Your task to perform on an android device: Open Google Chrome and open the bookmarks view Image 0: 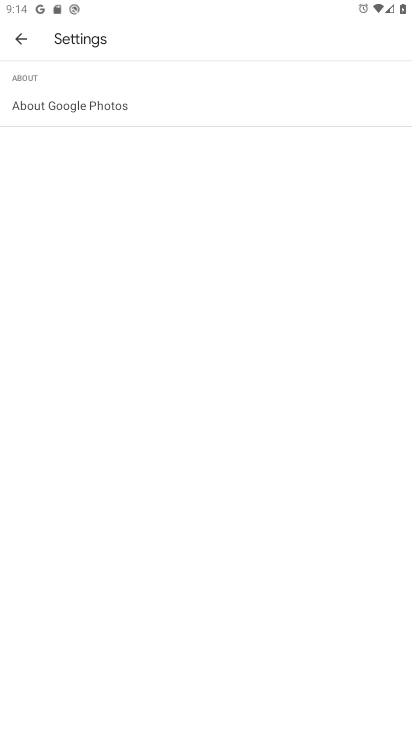
Step 0: press home button
Your task to perform on an android device: Open Google Chrome and open the bookmarks view Image 1: 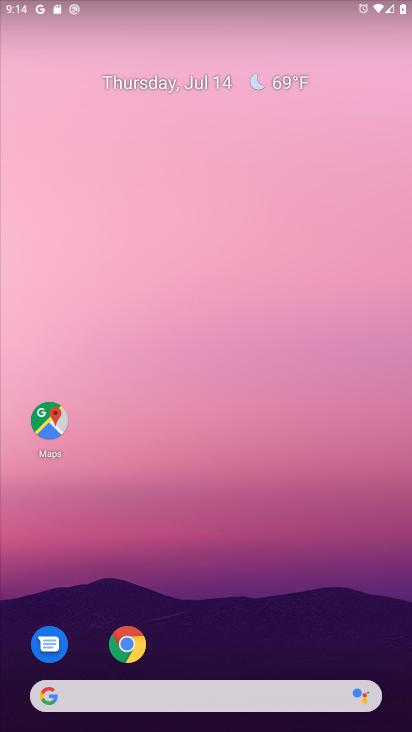
Step 1: click (134, 644)
Your task to perform on an android device: Open Google Chrome and open the bookmarks view Image 2: 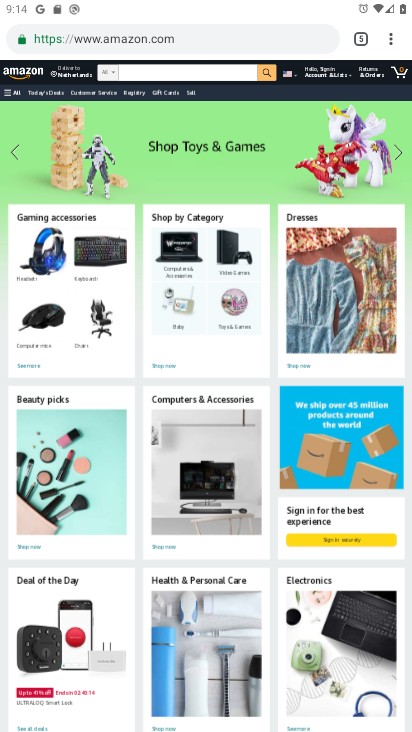
Step 2: click (398, 37)
Your task to perform on an android device: Open Google Chrome and open the bookmarks view Image 3: 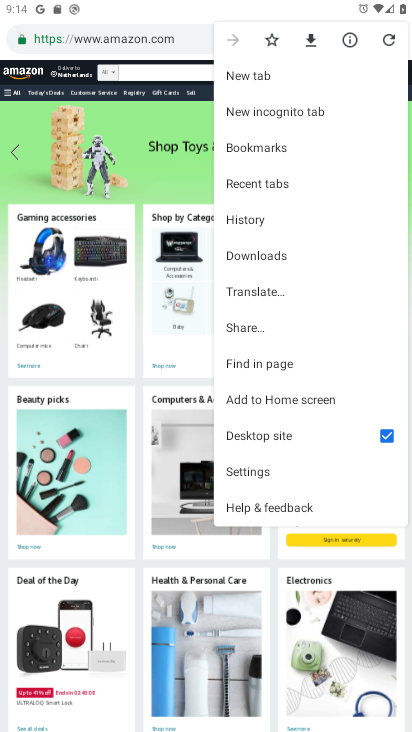
Step 3: click (320, 150)
Your task to perform on an android device: Open Google Chrome and open the bookmarks view Image 4: 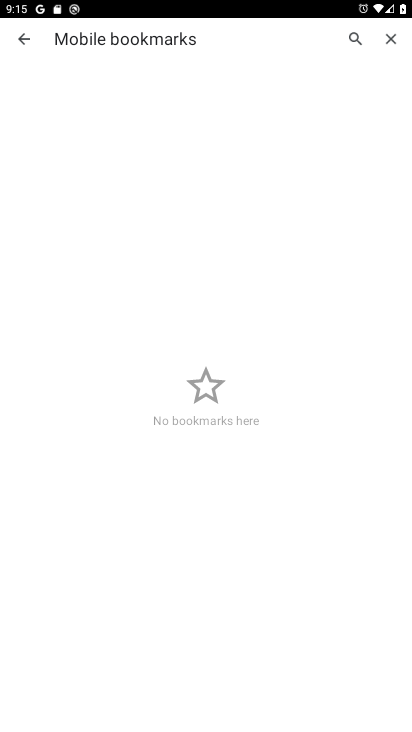
Step 4: task complete